Your task to perform on an android device: check google app version Image 0: 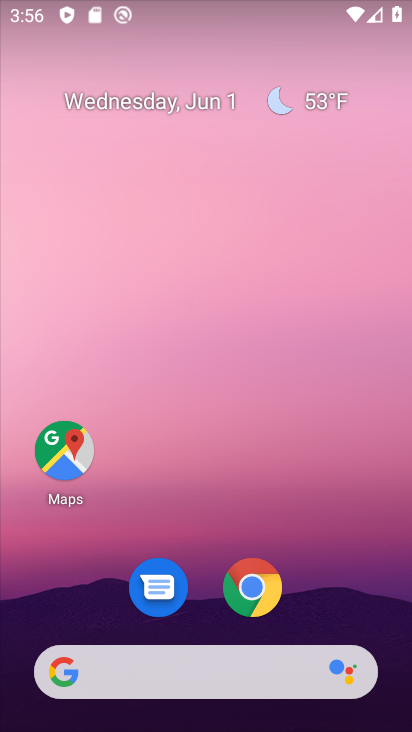
Step 0: drag from (336, 611) to (204, 56)
Your task to perform on an android device: check google app version Image 1: 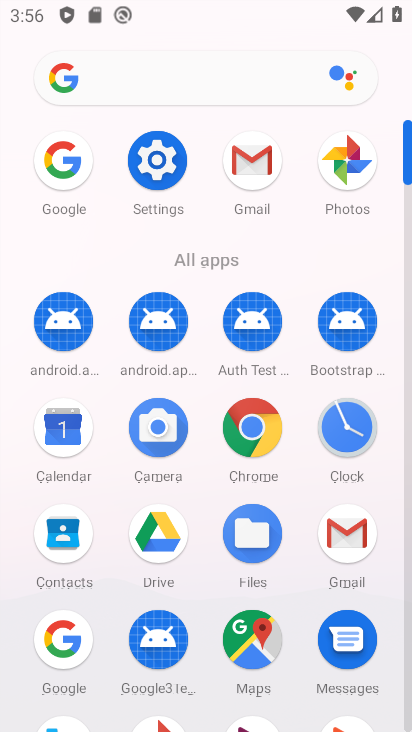
Step 1: click (59, 157)
Your task to perform on an android device: check google app version Image 2: 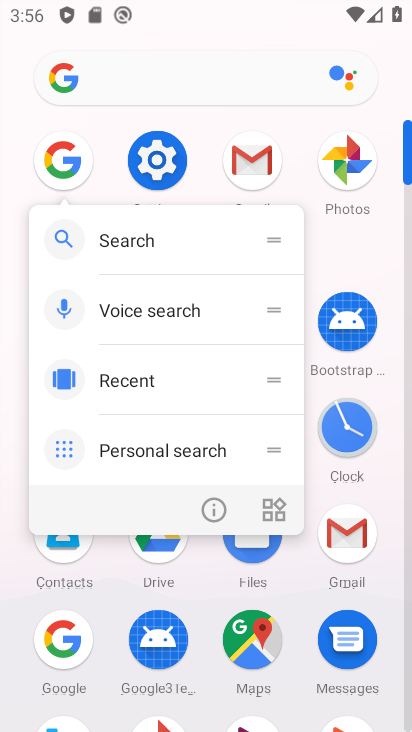
Step 2: click (215, 507)
Your task to perform on an android device: check google app version Image 3: 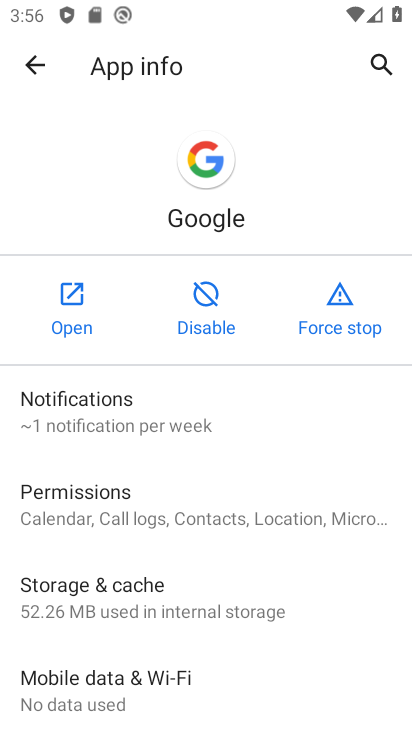
Step 3: drag from (184, 540) to (208, 460)
Your task to perform on an android device: check google app version Image 4: 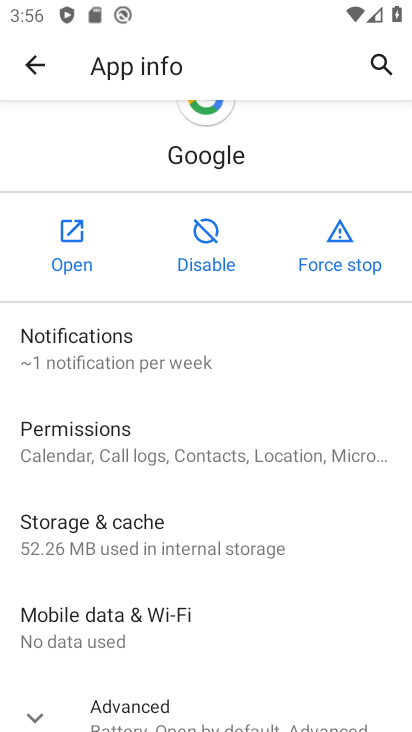
Step 4: drag from (180, 578) to (215, 499)
Your task to perform on an android device: check google app version Image 5: 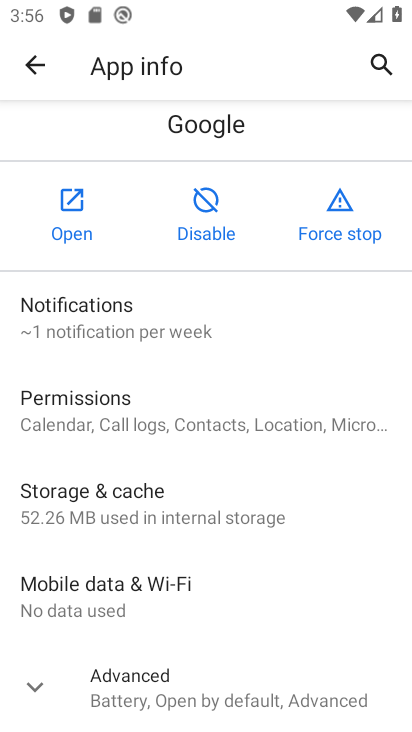
Step 5: drag from (196, 604) to (233, 507)
Your task to perform on an android device: check google app version Image 6: 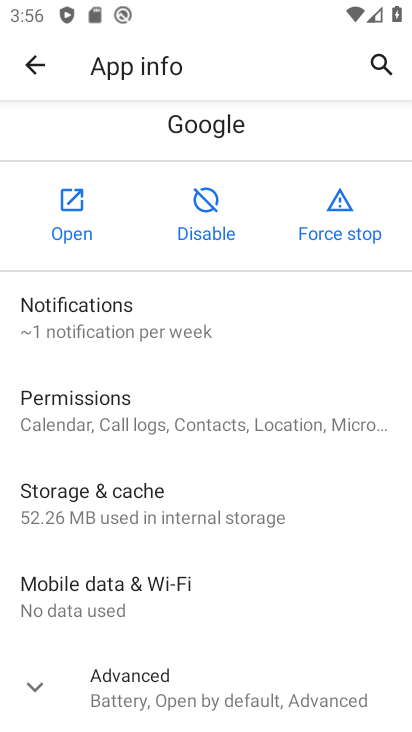
Step 6: click (214, 702)
Your task to perform on an android device: check google app version Image 7: 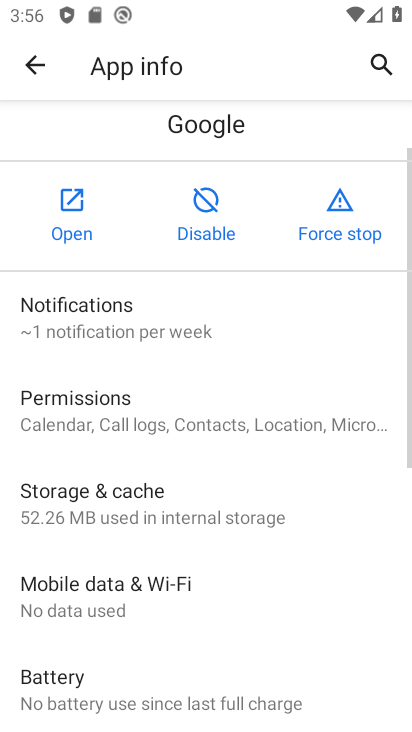
Step 7: task complete